Your task to perform on an android device: turn off improve location accuracy Image 0: 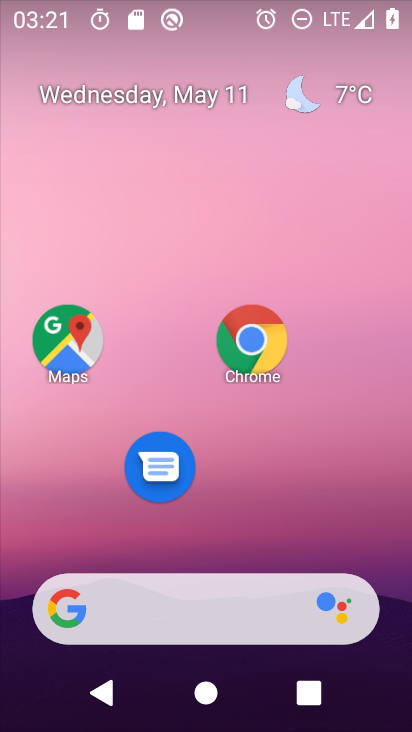
Step 0: drag from (208, 619) to (259, 171)
Your task to perform on an android device: turn off improve location accuracy Image 1: 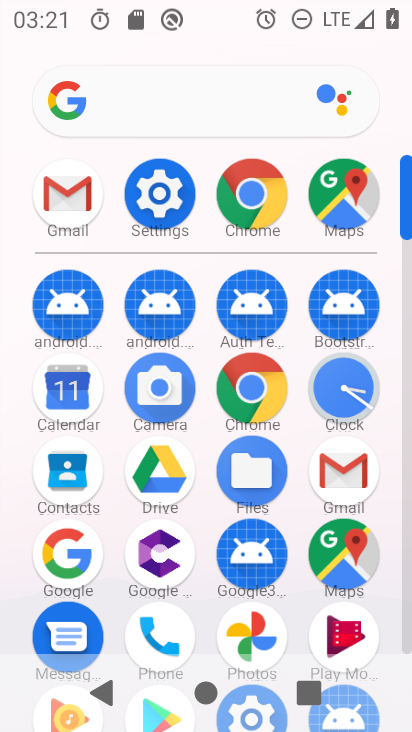
Step 1: click (148, 202)
Your task to perform on an android device: turn off improve location accuracy Image 2: 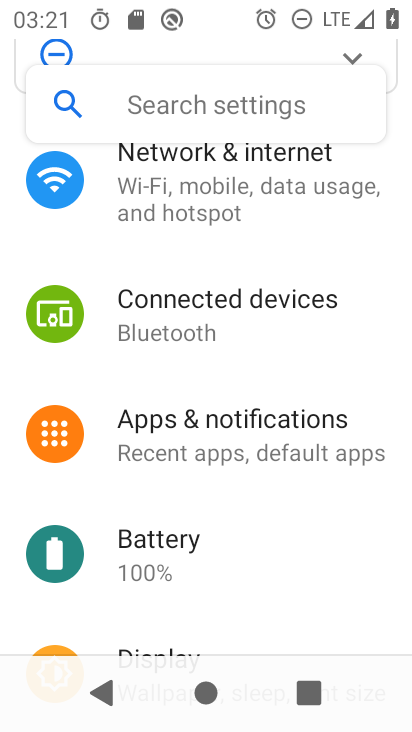
Step 2: drag from (255, 415) to (357, 150)
Your task to perform on an android device: turn off improve location accuracy Image 3: 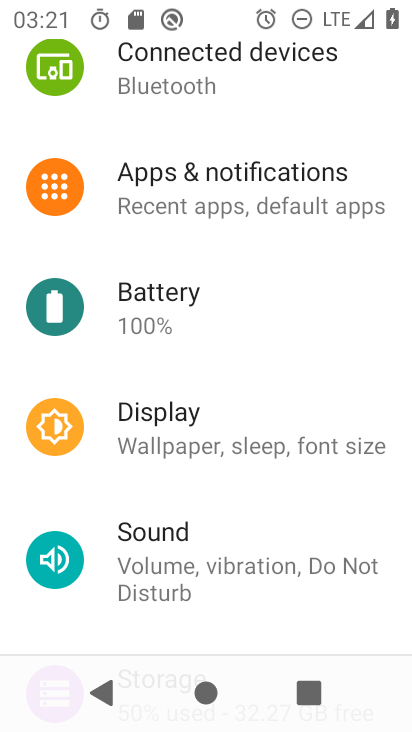
Step 3: drag from (231, 511) to (334, 49)
Your task to perform on an android device: turn off improve location accuracy Image 4: 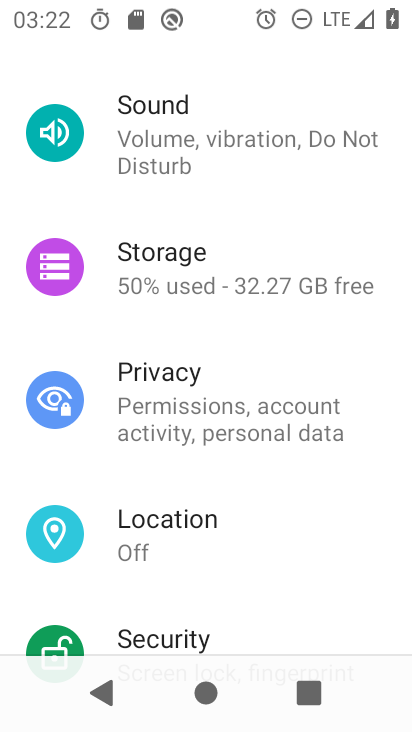
Step 4: click (172, 524)
Your task to perform on an android device: turn off improve location accuracy Image 5: 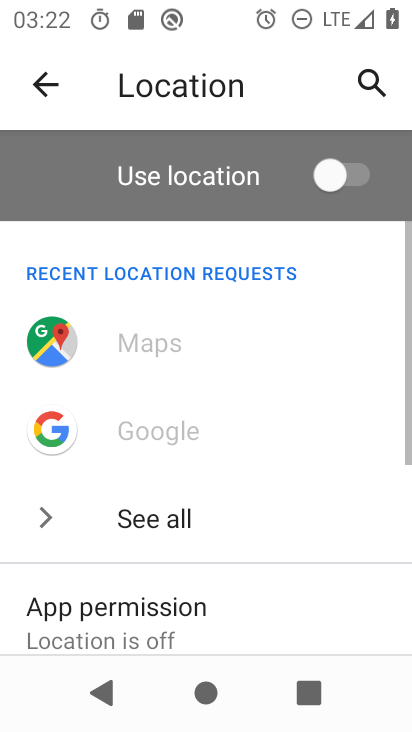
Step 5: drag from (184, 626) to (337, 115)
Your task to perform on an android device: turn off improve location accuracy Image 6: 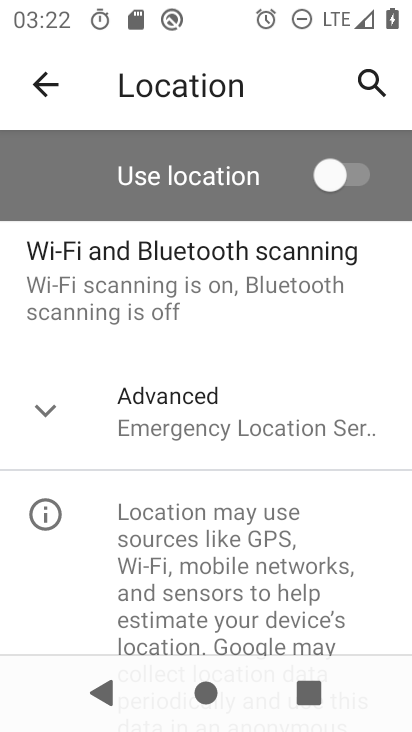
Step 6: click (195, 433)
Your task to perform on an android device: turn off improve location accuracy Image 7: 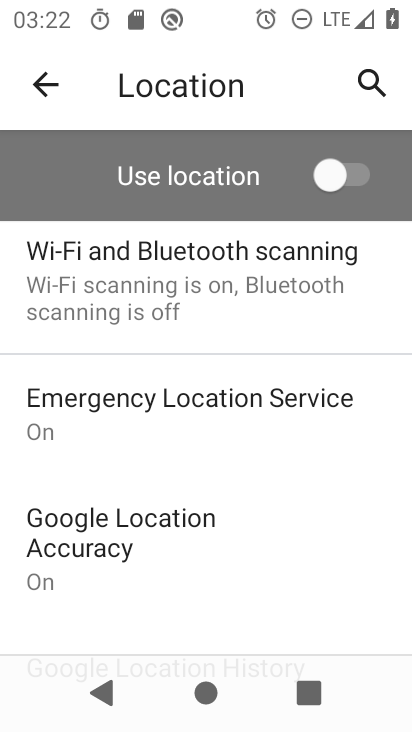
Step 7: click (134, 556)
Your task to perform on an android device: turn off improve location accuracy Image 8: 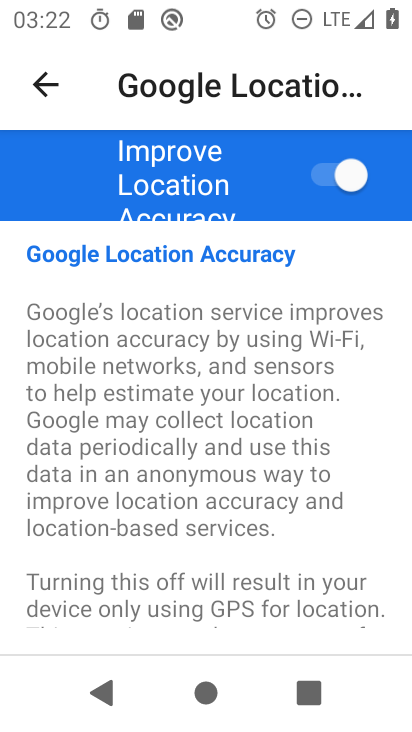
Step 8: click (328, 181)
Your task to perform on an android device: turn off improve location accuracy Image 9: 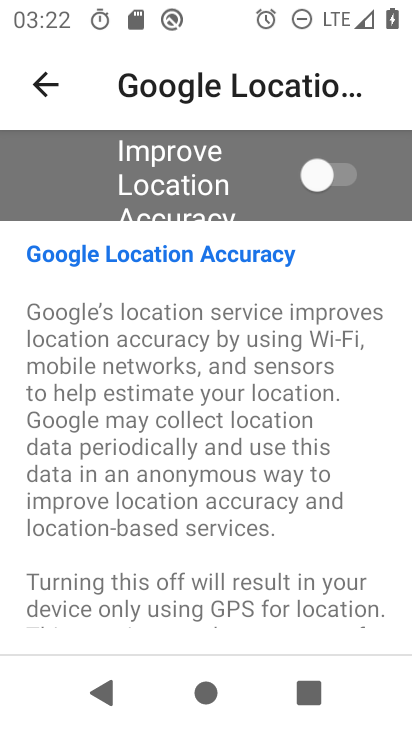
Step 9: task complete